Your task to perform on an android device: Go to wifi settings Image 0: 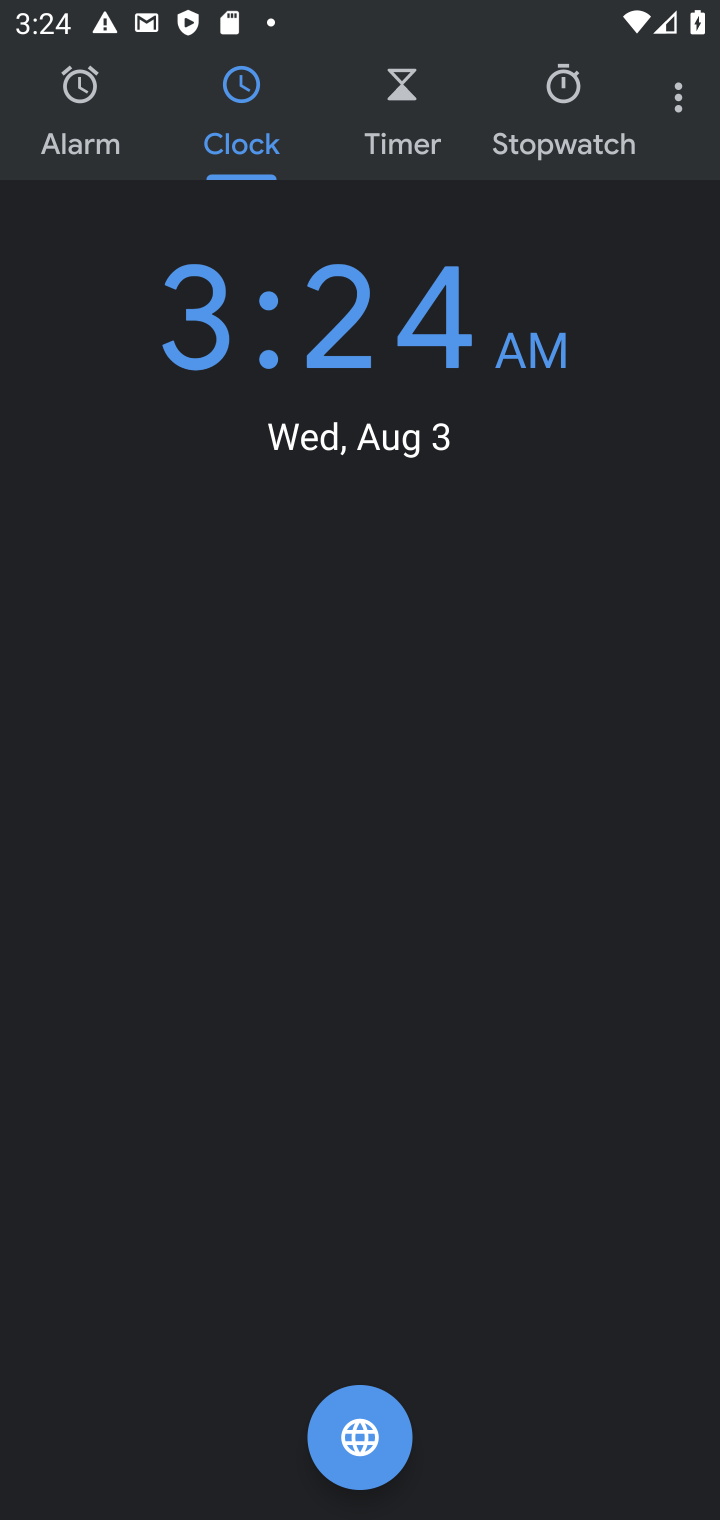
Step 0: press back button
Your task to perform on an android device: Go to wifi settings Image 1: 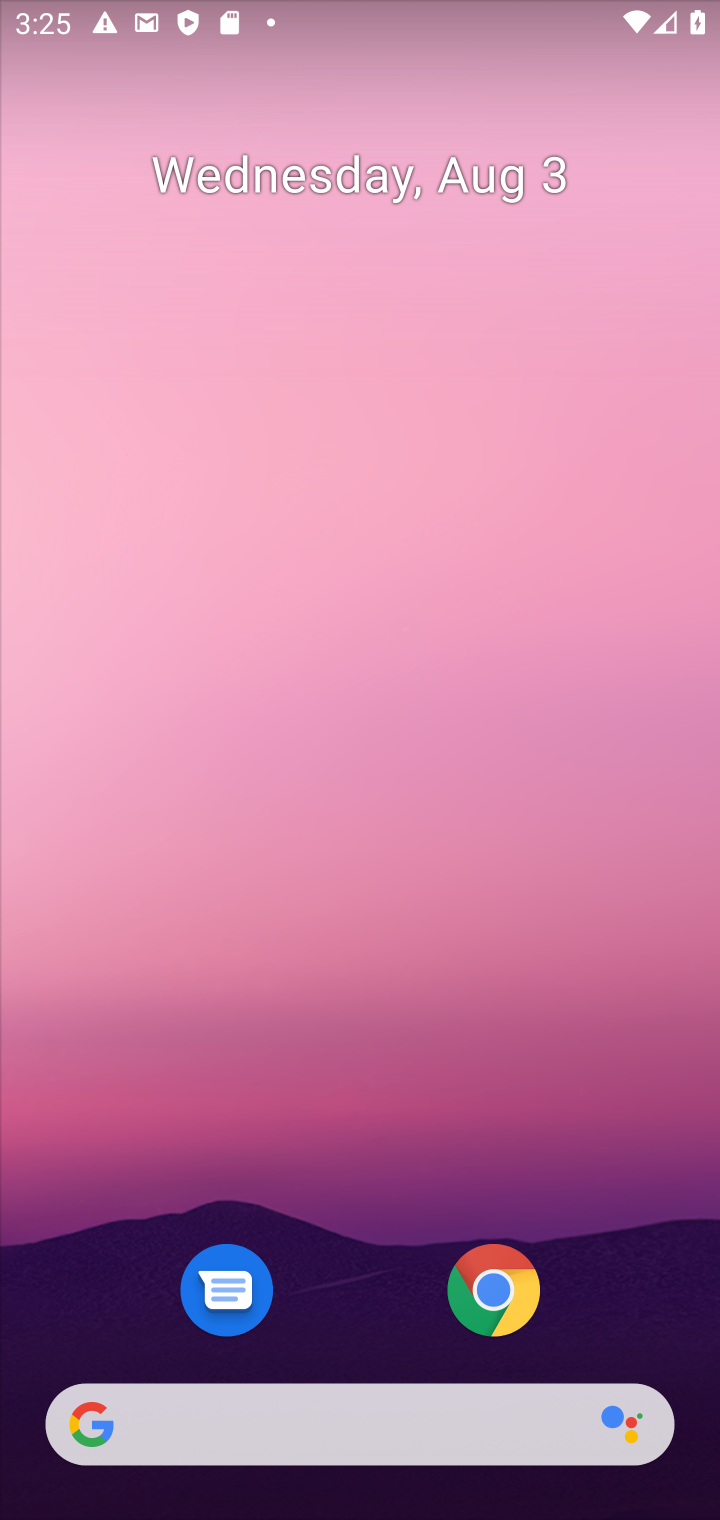
Step 1: press home button
Your task to perform on an android device: Go to wifi settings Image 2: 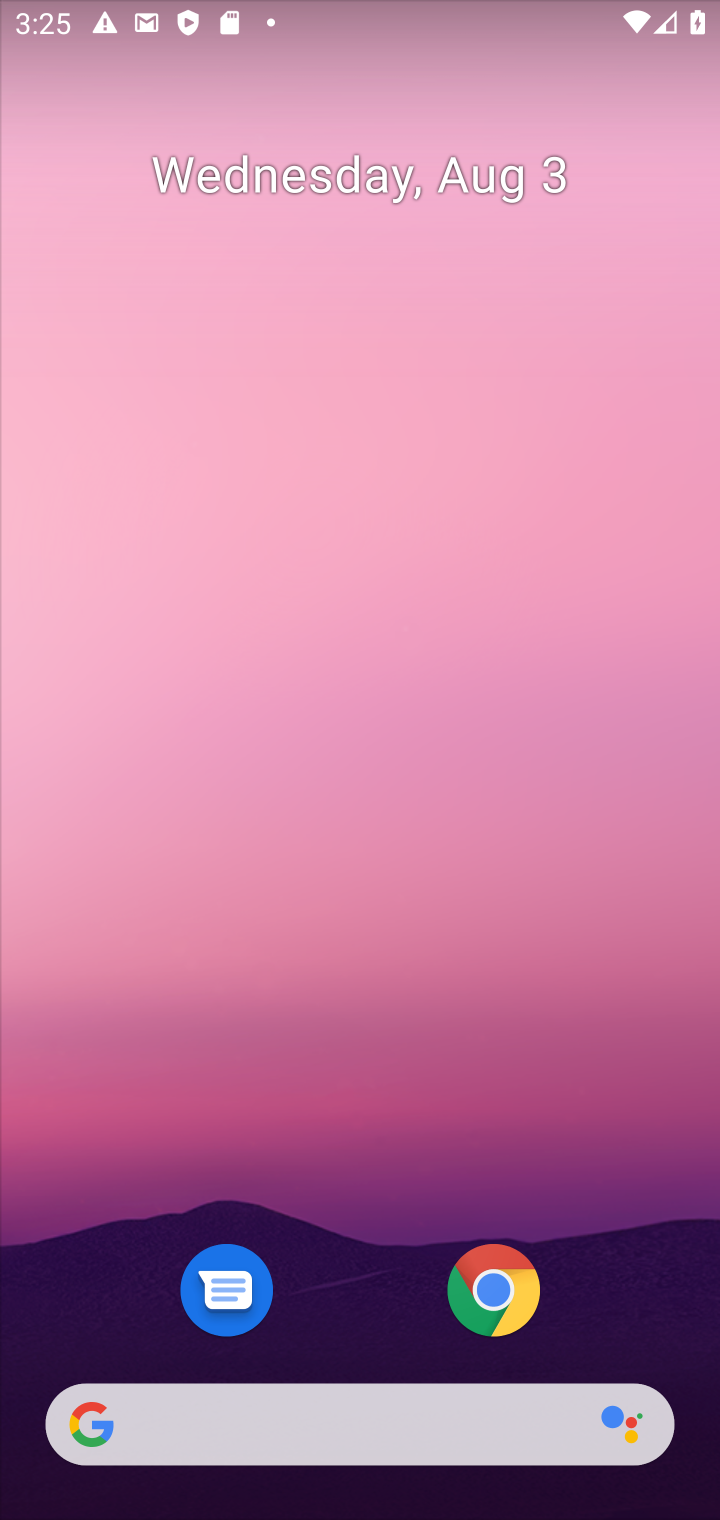
Step 2: drag from (181, 220) to (214, 1013)
Your task to perform on an android device: Go to wifi settings Image 3: 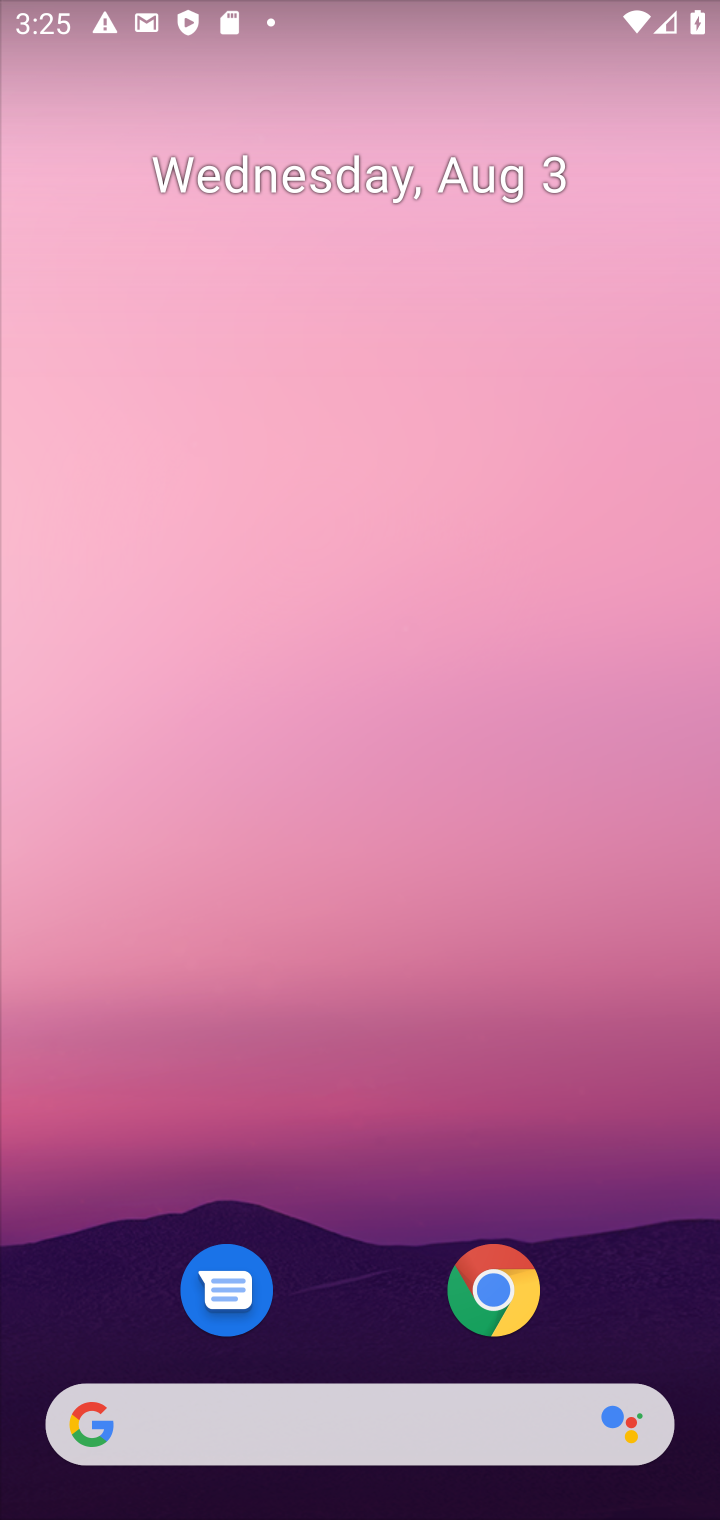
Step 3: drag from (187, 17) to (323, 1049)
Your task to perform on an android device: Go to wifi settings Image 4: 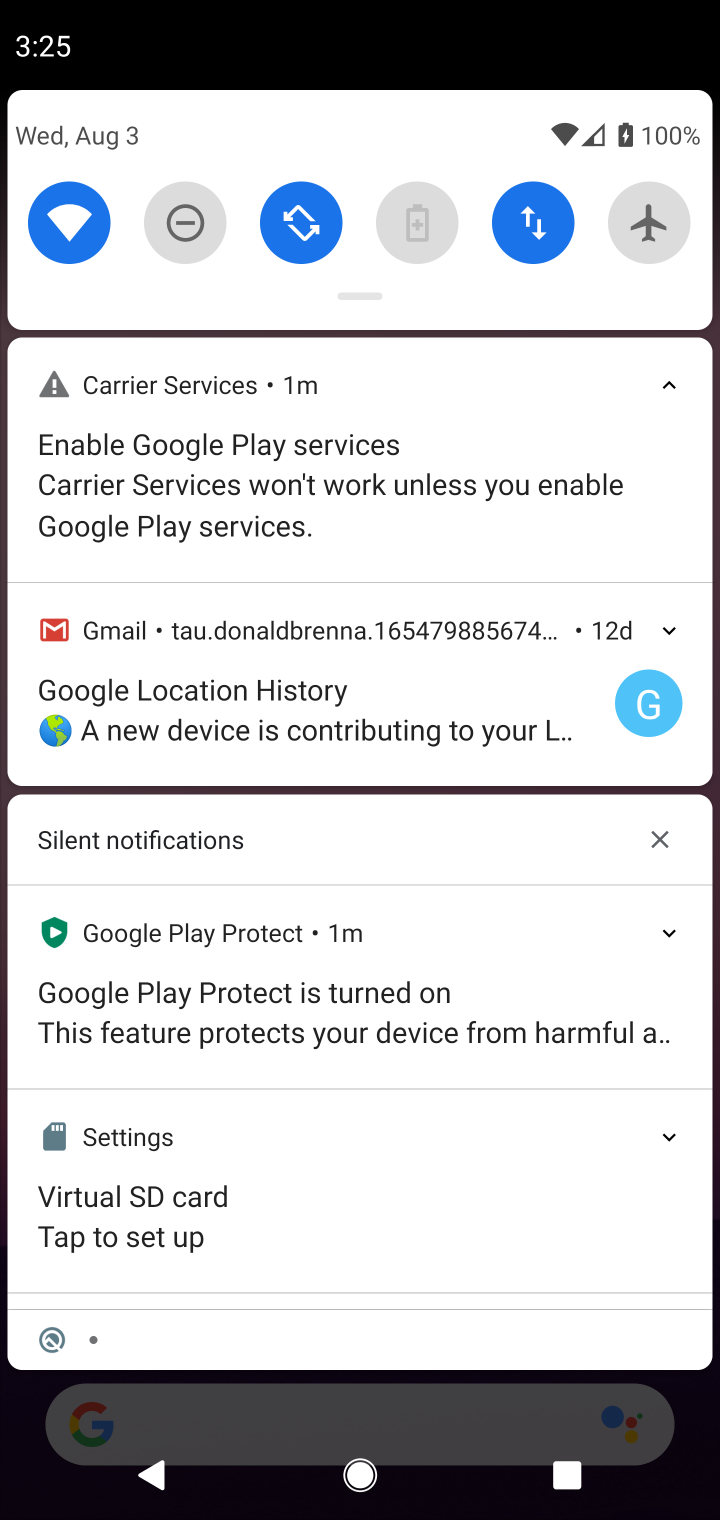
Step 4: click (57, 237)
Your task to perform on an android device: Go to wifi settings Image 5: 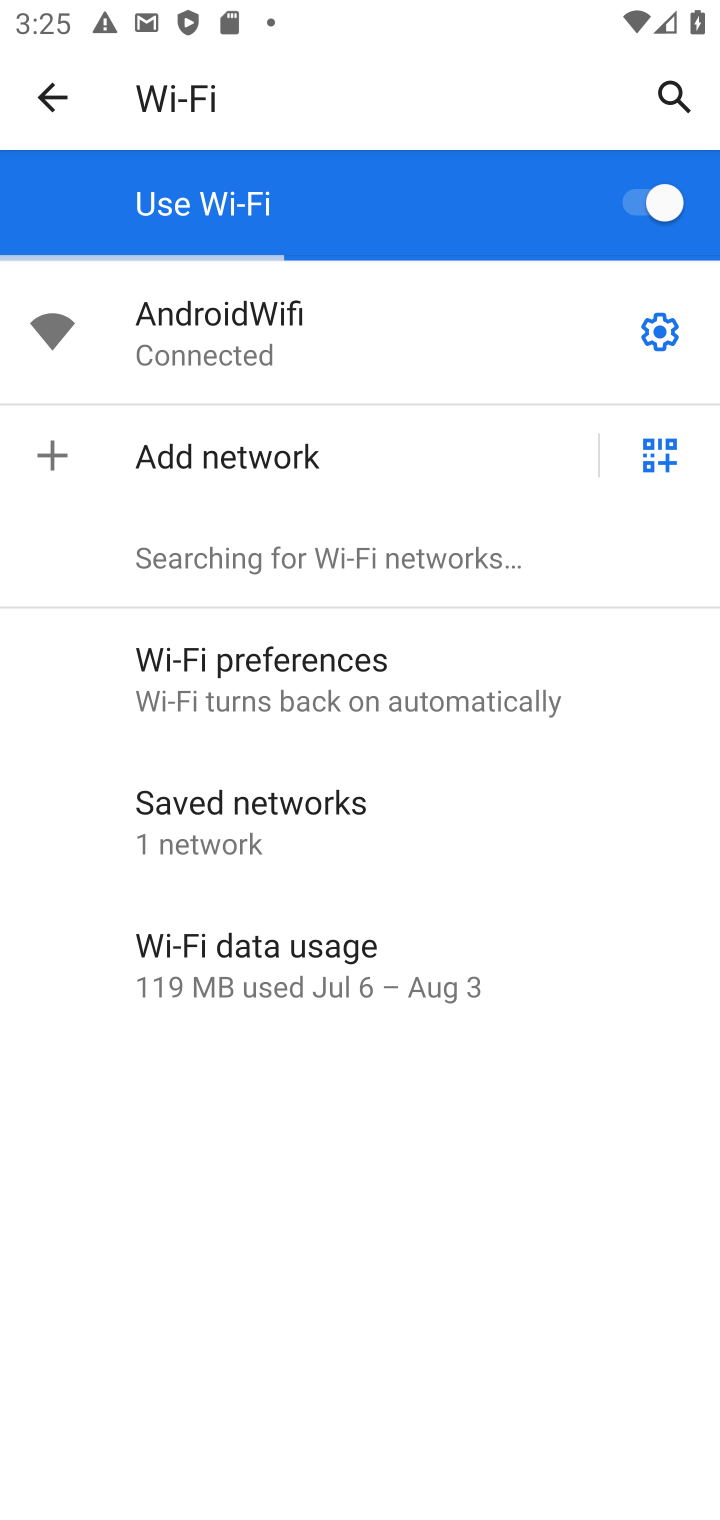
Step 5: task complete